Your task to perform on an android device: turn off javascript in the chrome app Image 0: 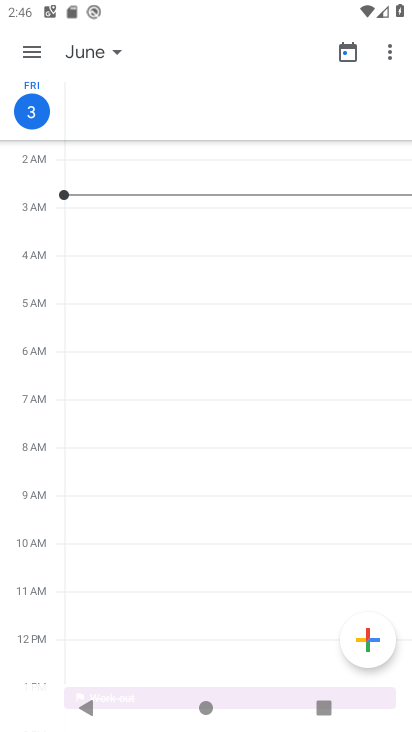
Step 0: press home button
Your task to perform on an android device: turn off javascript in the chrome app Image 1: 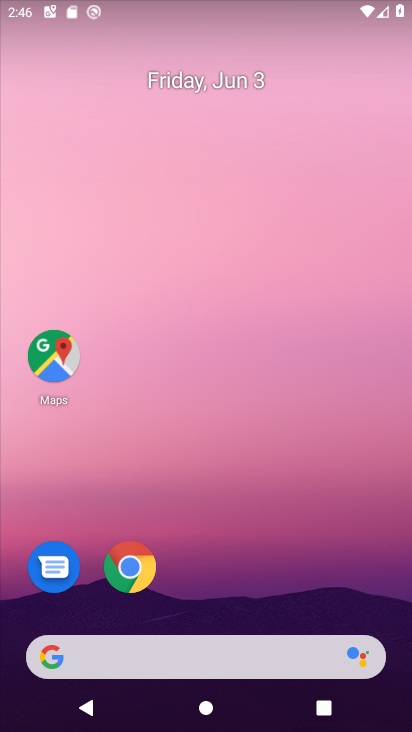
Step 1: drag from (293, 607) to (252, 278)
Your task to perform on an android device: turn off javascript in the chrome app Image 2: 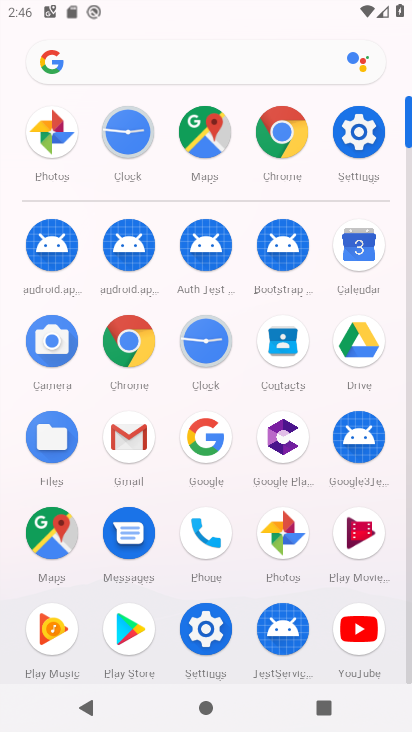
Step 2: click (140, 337)
Your task to perform on an android device: turn off javascript in the chrome app Image 3: 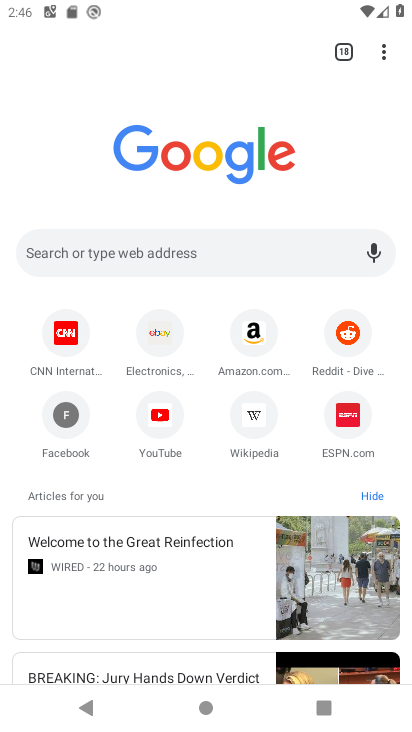
Step 3: click (393, 46)
Your task to perform on an android device: turn off javascript in the chrome app Image 4: 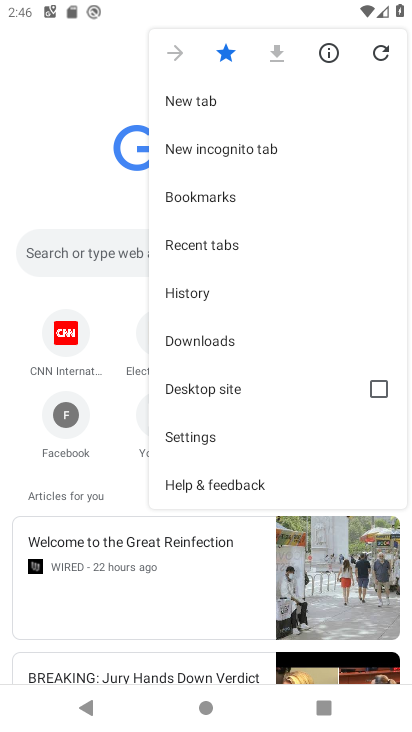
Step 4: click (242, 436)
Your task to perform on an android device: turn off javascript in the chrome app Image 5: 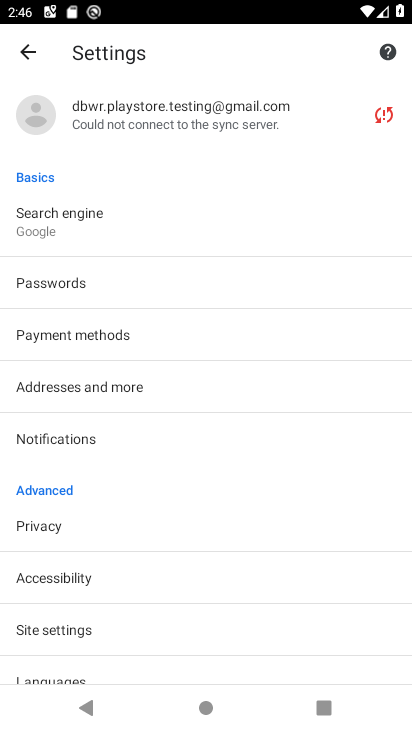
Step 5: drag from (200, 611) to (235, 282)
Your task to perform on an android device: turn off javascript in the chrome app Image 6: 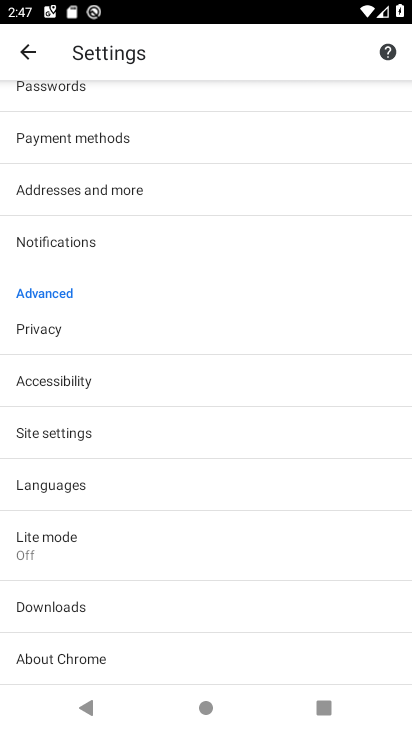
Step 6: click (115, 419)
Your task to perform on an android device: turn off javascript in the chrome app Image 7: 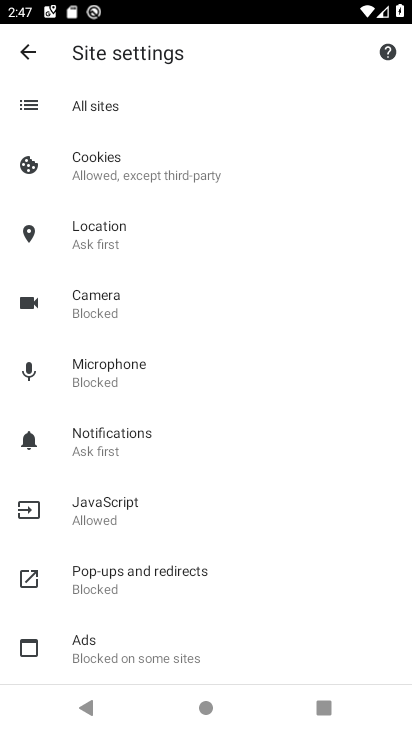
Step 7: click (153, 527)
Your task to perform on an android device: turn off javascript in the chrome app Image 8: 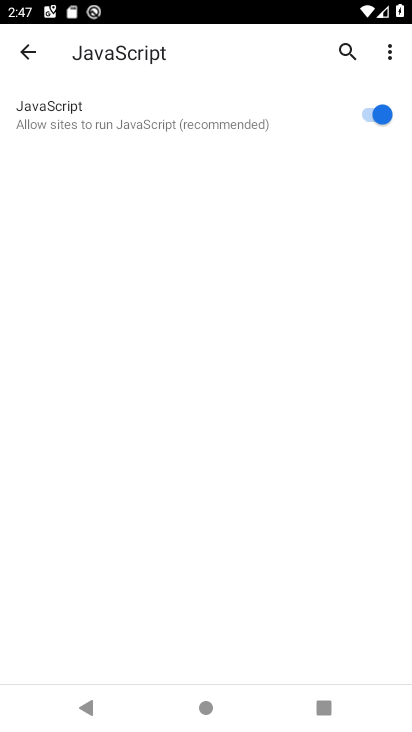
Step 8: click (356, 109)
Your task to perform on an android device: turn off javascript in the chrome app Image 9: 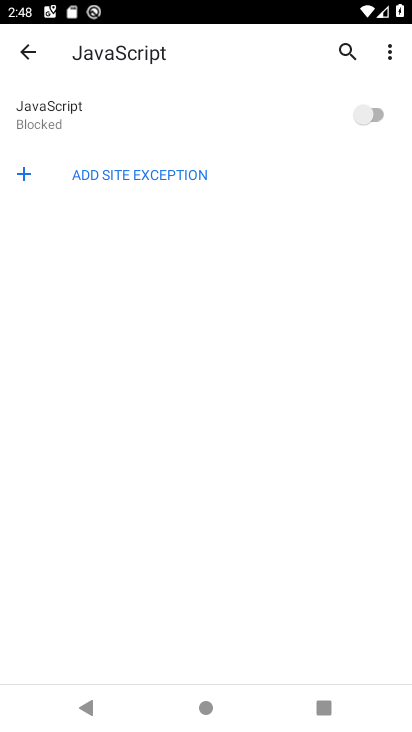
Step 9: task complete